Your task to perform on an android device: Open calendar and show me the fourth week of next month Image 0: 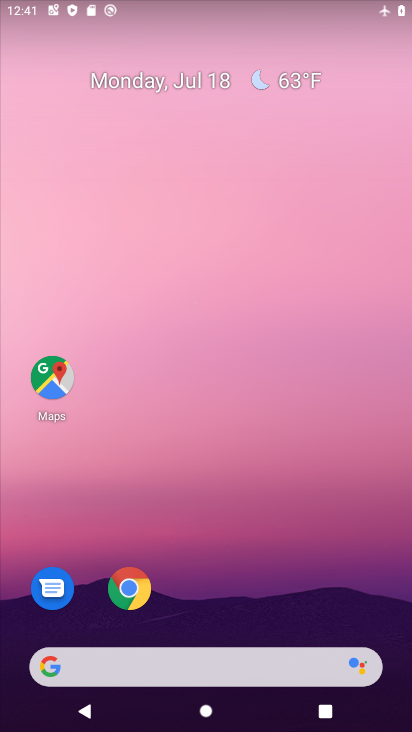
Step 0: drag from (235, 712) to (214, 148)
Your task to perform on an android device: Open calendar and show me the fourth week of next month Image 1: 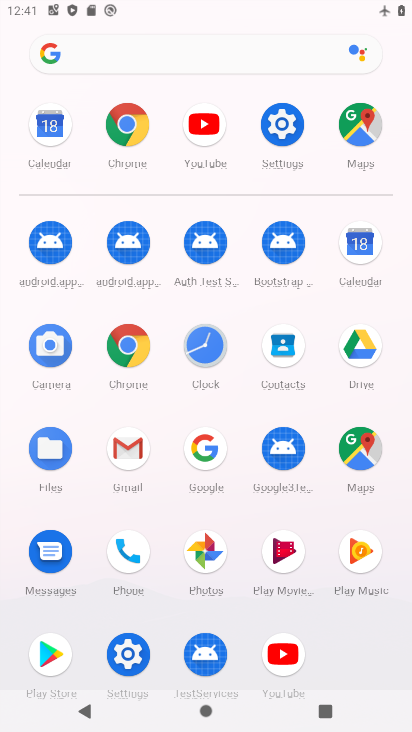
Step 1: click (359, 245)
Your task to perform on an android device: Open calendar and show me the fourth week of next month Image 2: 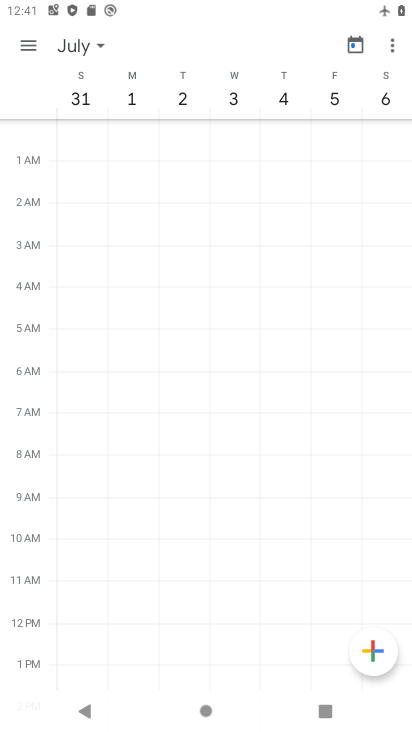
Step 2: click (100, 39)
Your task to perform on an android device: Open calendar and show me the fourth week of next month Image 3: 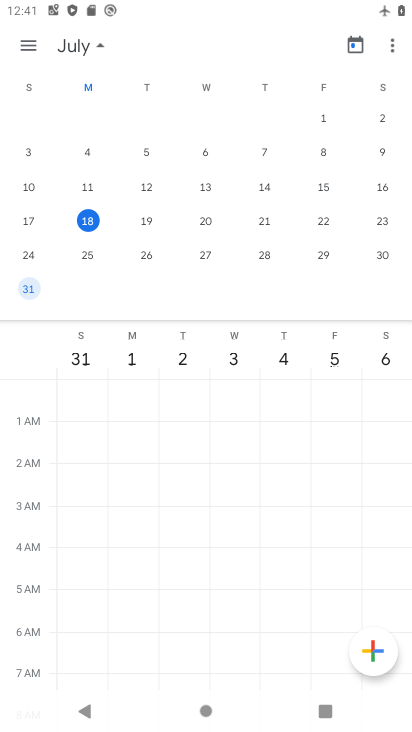
Step 3: drag from (318, 231) to (0, 259)
Your task to perform on an android device: Open calendar and show me the fourth week of next month Image 4: 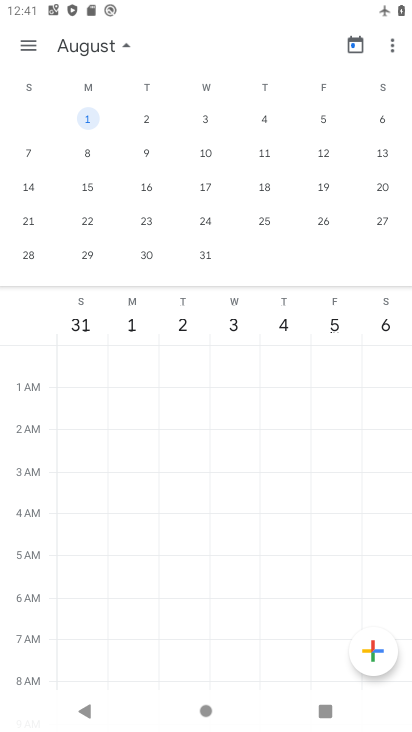
Step 4: click (85, 220)
Your task to perform on an android device: Open calendar and show me the fourth week of next month Image 5: 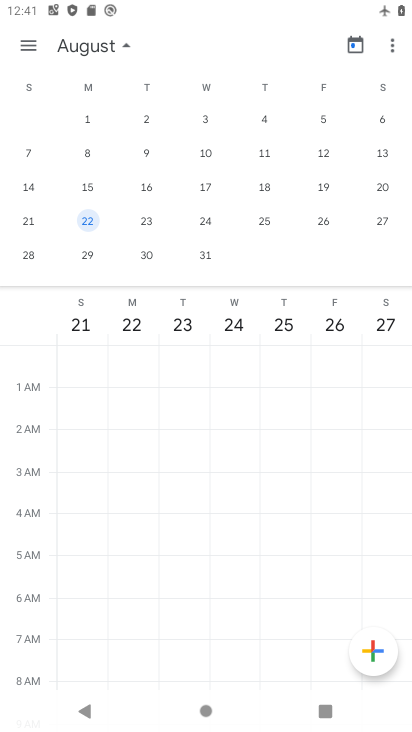
Step 5: click (24, 42)
Your task to perform on an android device: Open calendar and show me the fourth week of next month Image 6: 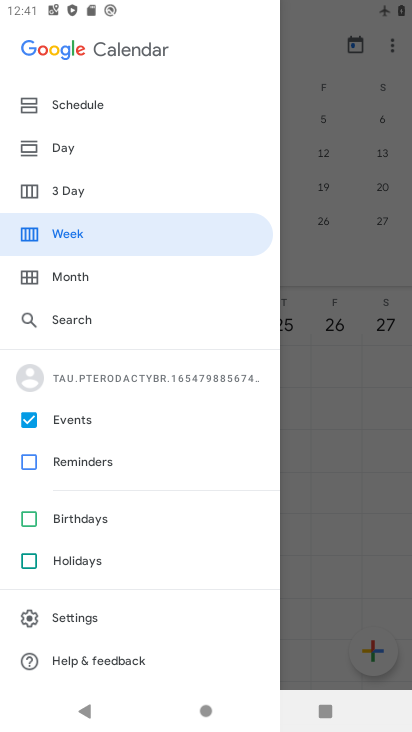
Step 6: click (67, 236)
Your task to perform on an android device: Open calendar and show me the fourth week of next month Image 7: 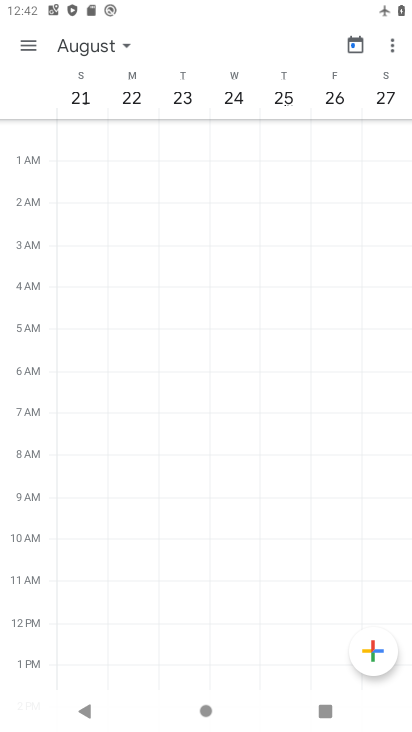
Step 7: task complete